Your task to perform on an android device: change notification settings in the gmail app Image 0: 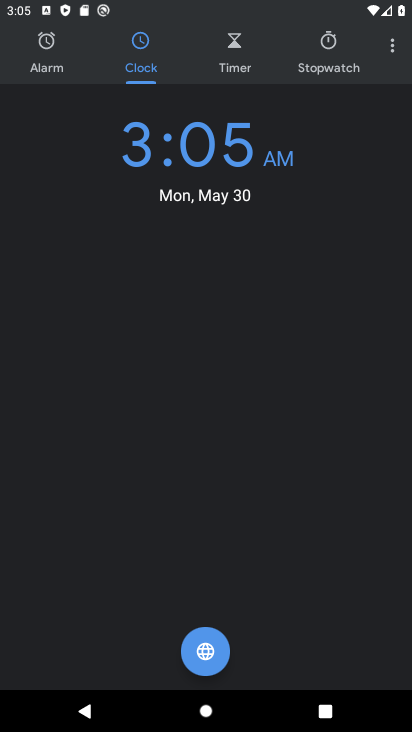
Step 0: press home button
Your task to perform on an android device: change notification settings in the gmail app Image 1: 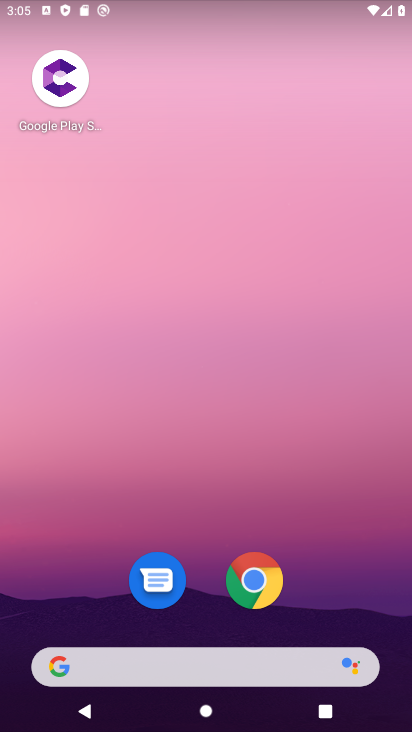
Step 1: drag from (324, 593) to (302, 66)
Your task to perform on an android device: change notification settings in the gmail app Image 2: 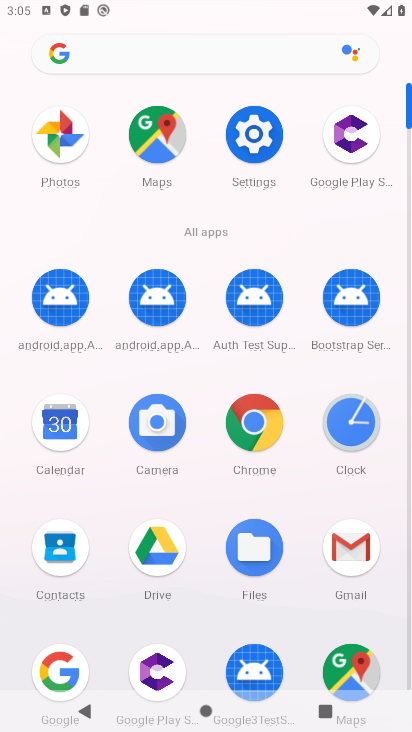
Step 2: click (346, 560)
Your task to perform on an android device: change notification settings in the gmail app Image 3: 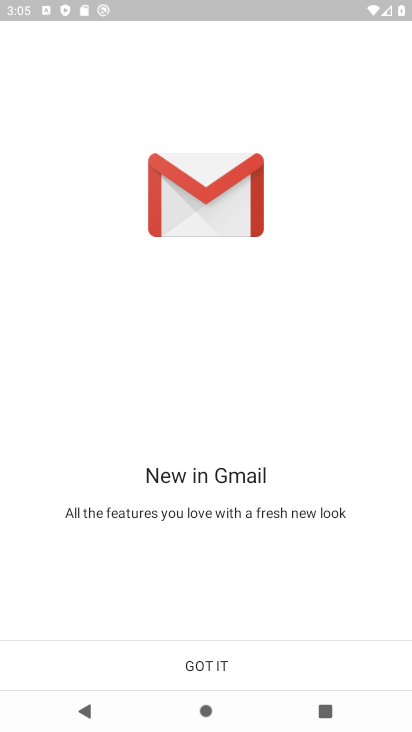
Step 3: click (205, 676)
Your task to perform on an android device: change notification settings in the gmail app Image 4: 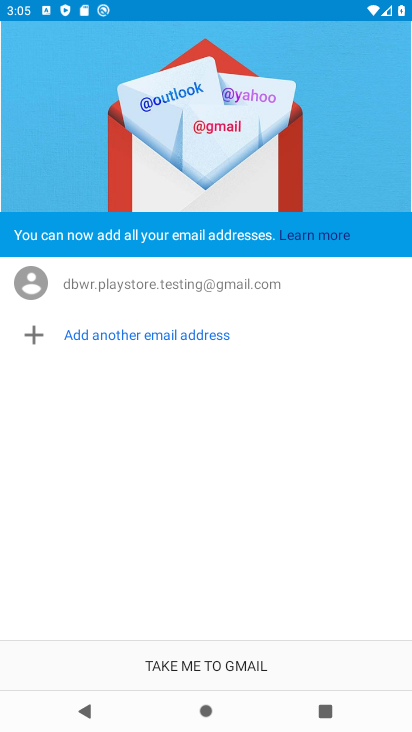
Step 4: click (203, 670)
Your task to perform on an android device: change notification settings in the gmail app Image 5: 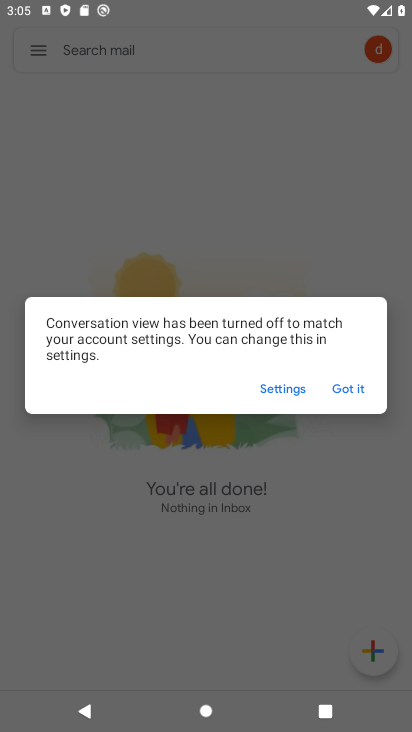
Step 5: click (293, 391)
Your task to perform on an android device: change notification settings in the gmail app Image 6: 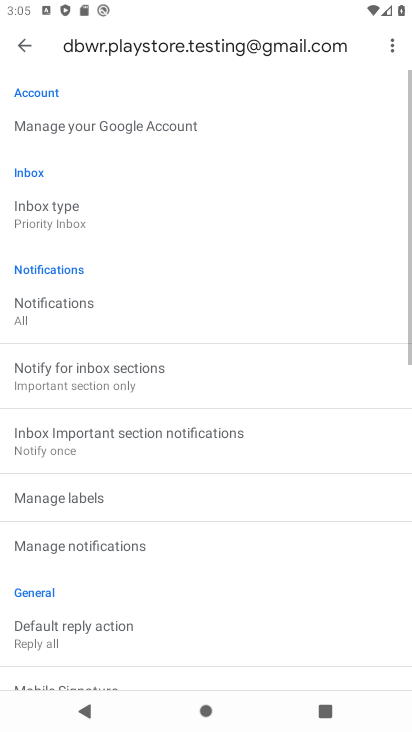
Step 6: click (71, 304)
Your task to perform on an android device: change notification settings in the gmail app Image 7: 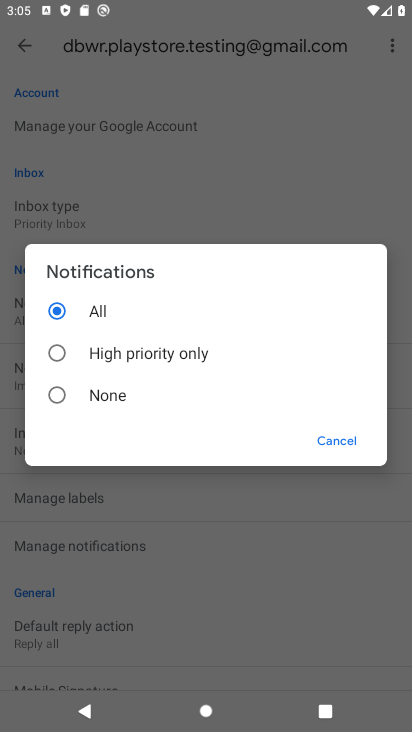
Step 7: click (53, 398)
Your task to perform on an android device: change notification settings in the gmail app Image 8: 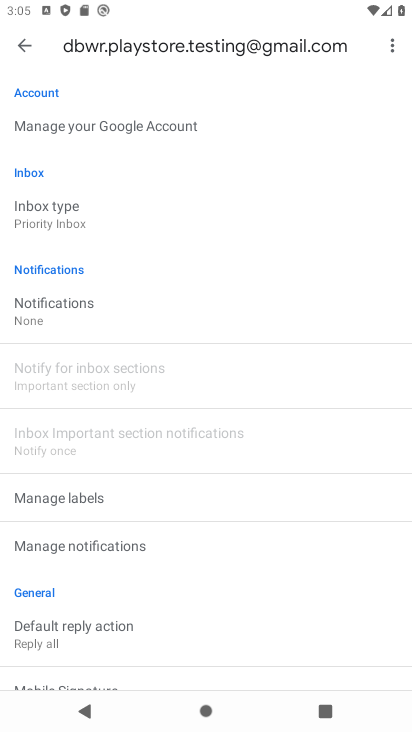
Step 8: task complete